Your task to perform on an android device: Show me productivity apps on the Play Store Image 0: 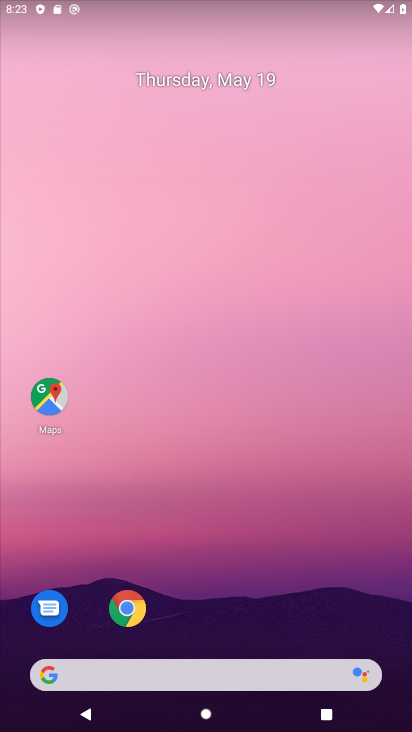
Step 0: drag from (356, 608) to (231, 116)
Your task to perform on an android device: Show me productivity apps on the Play Store Image 1: 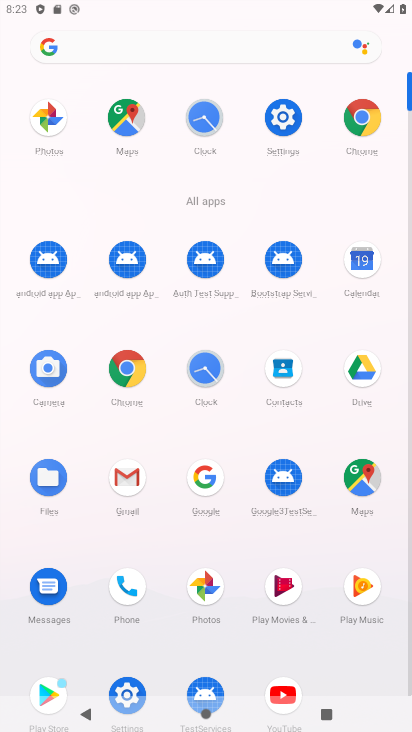
Step 1: drag from (191, 595) to (201, 227)
Your task to perform on an android device: Show me productivity apps on the Play Store Image 2: 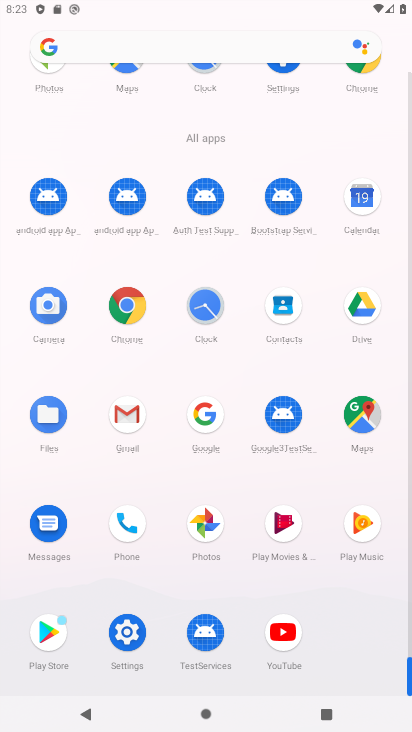
Step 2: drag from (212, 467) to (140, 36)
Your task to perform on an android device: Show me productivity apps on the Play Store Image 3: 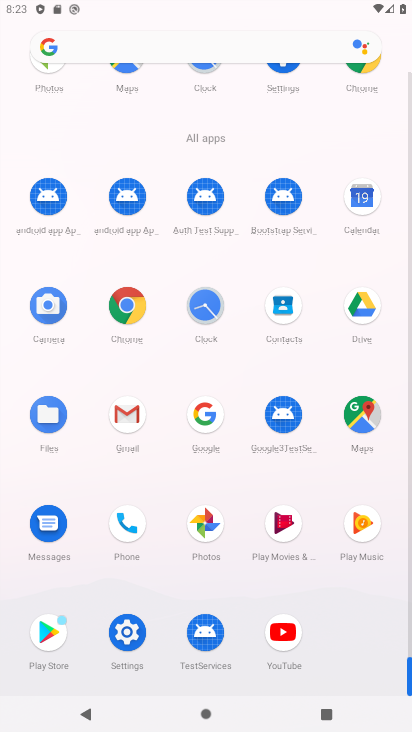
Step 3: click (38, 634)
Your task to perform on an android device: Show me productivity apps on the Play Store Image 4: 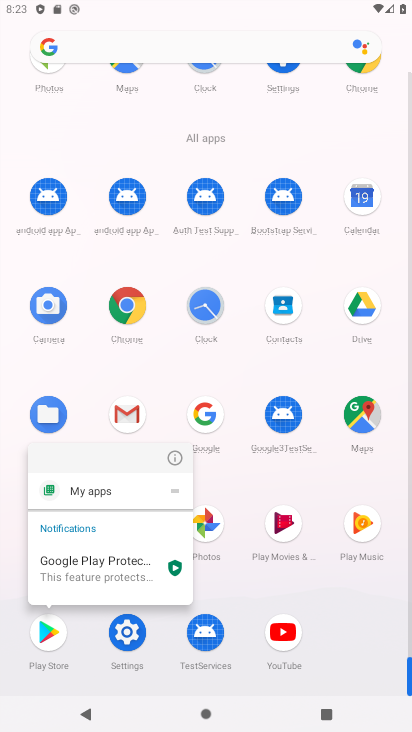
Step 4: click (48, 621)
Your task to perform on an android device: Show me productivity apps on the Play Store Image 5: 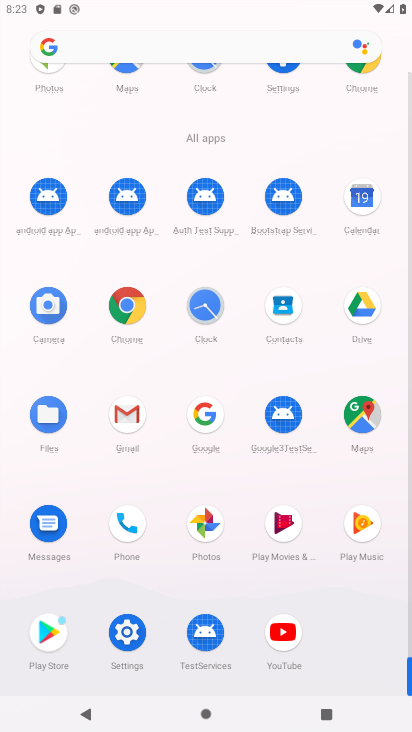
Step 5: click (48, 621)
Your task to perform on an android device: Show me productivity apps on the Play Store Image 6: 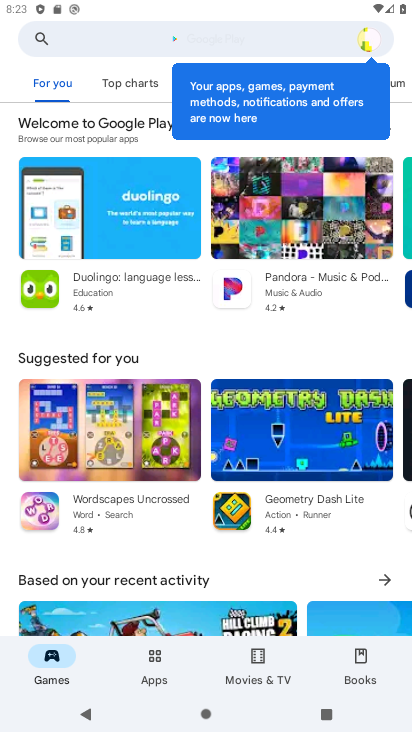
Step 6: click (90, 40)
Your task to perform on an android device: Show me productivity apps on the Play Store Image 7: 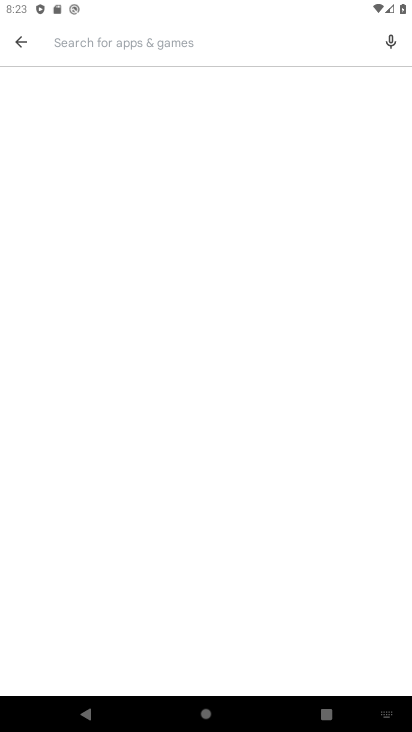
Step 7: type "productivity apps"
Your task to perform on an android device: Show me productivity apps on the Play Store Image 8: 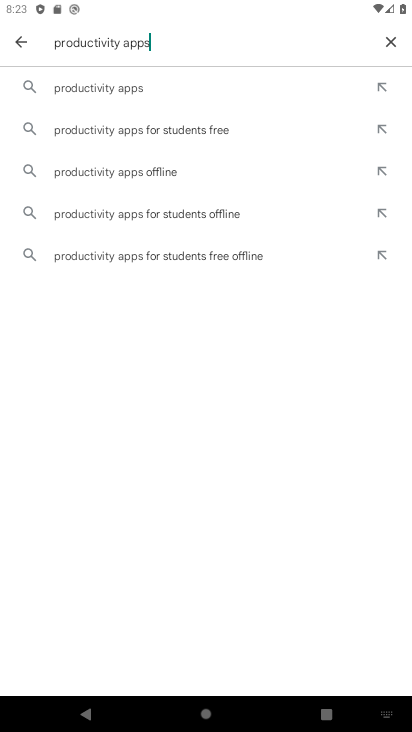
Step 8: click (108, 103)
Your task to perform on an android device: Show me productivity apps on the Play Store Image 9: 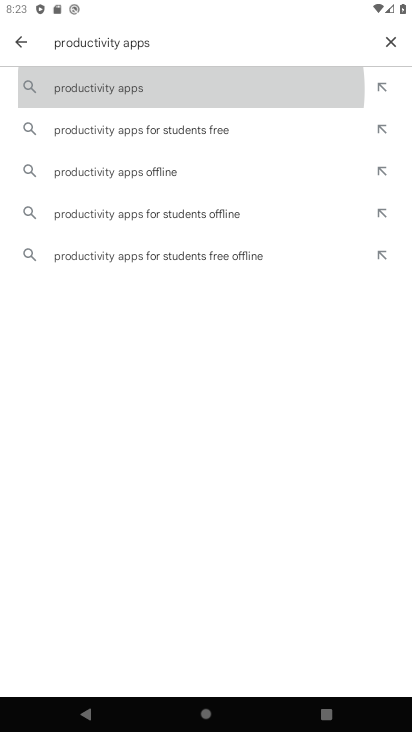
Step 9: click (101, 95)
Your task to perform on an android device: Show me productivity apps on the Play Store Image 10: 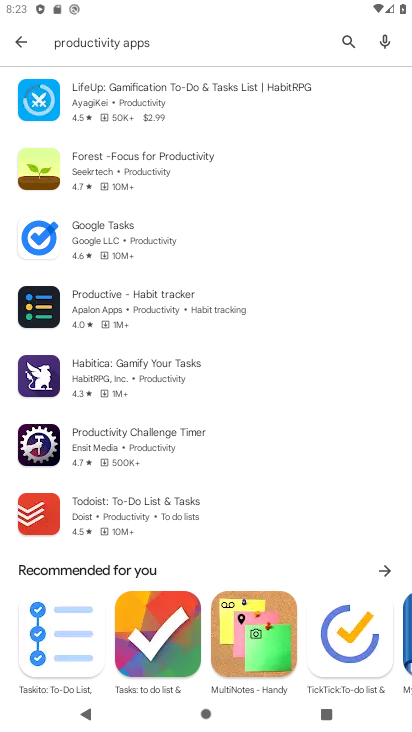
Step 10: task complete